Your task to perform on an android device: Open my contact list Image 0: 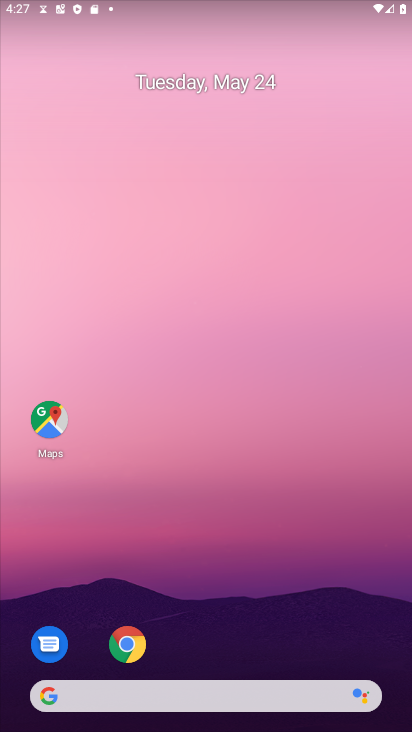
Step 0: drag from (271, 639) to (279, 244)
Your task to perform on an android device: Open my contact list Image 1: 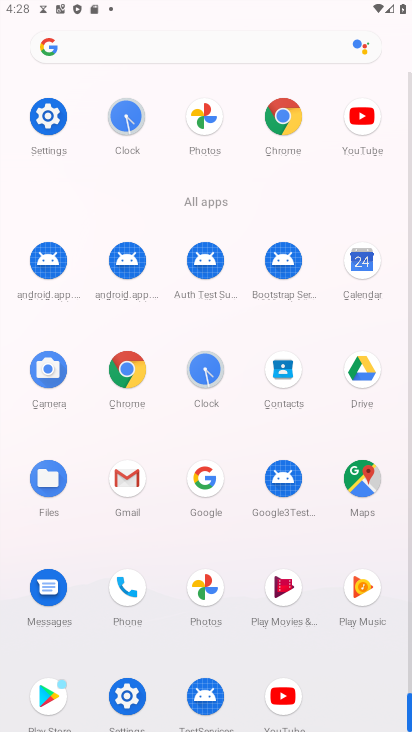
Step 1: click (289, 366)
Your task to perform on an android device: Open my contact list Image 2: 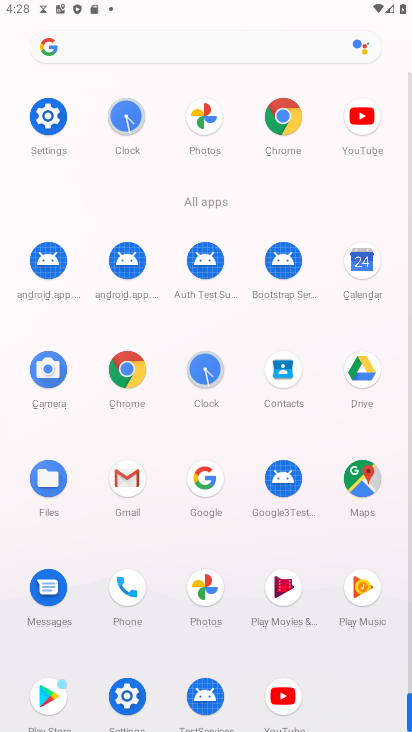
Step 2: click (291, 367)
Your task to perform on an android device: Open my contact list Image 3: 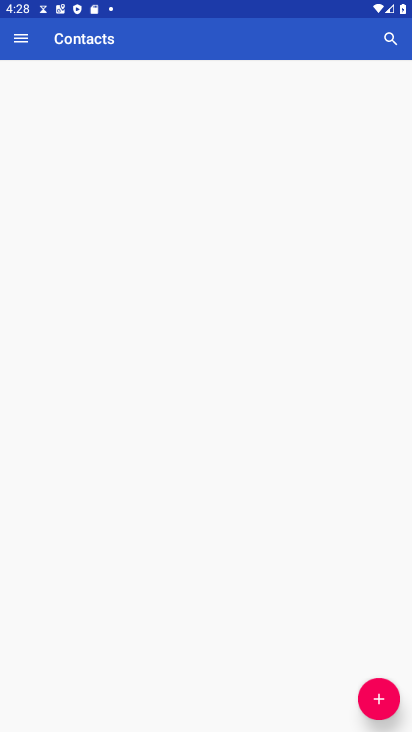
Step 3: click (292, 367)
Your task to perform on an android device: Open my contact list Image 4: 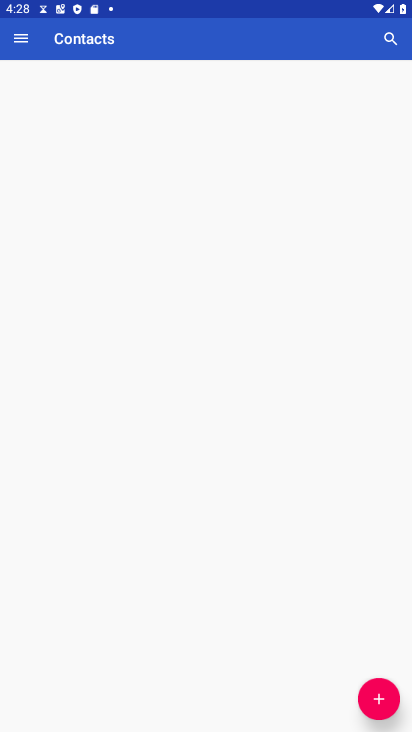
Step 4: click (292, 367)
Your task to perform on an android device: Open my contact list Image 5: 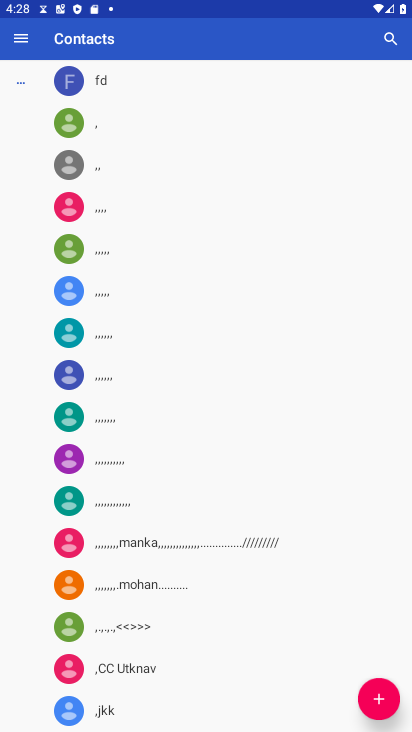
Step 5: task complete